Your task to perform on an android device: Open accessibility settings Image 0: 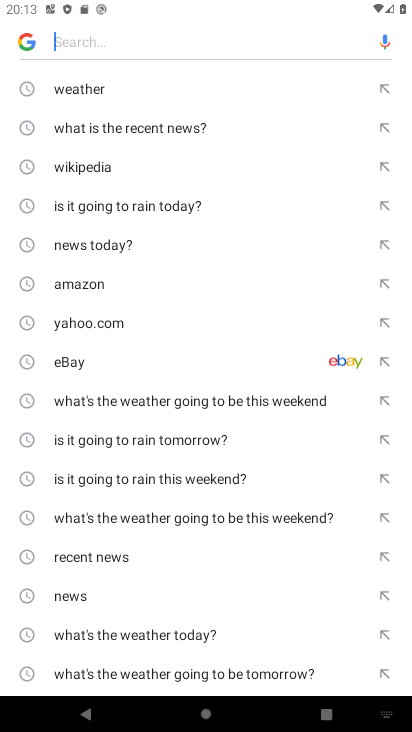
Step 0: press home button
Your task to perform on an android device: Open accessibility settings Image 1: 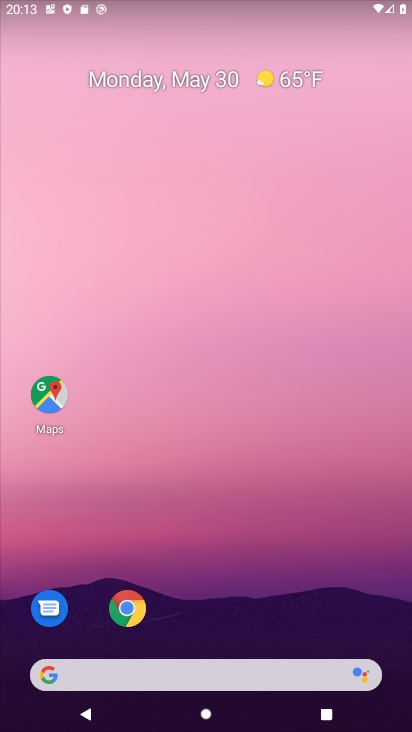
Step 1: drag from (210, 632) to (184, 185)
Your task to perform on an android device: Open accessibility settings Image 2: 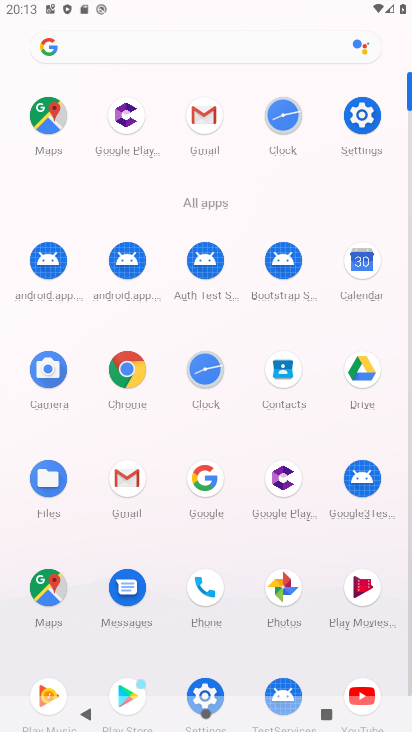
Step 2: click (351, 115)
Your task to perform on an android device: Open accessibility settings Image 3: 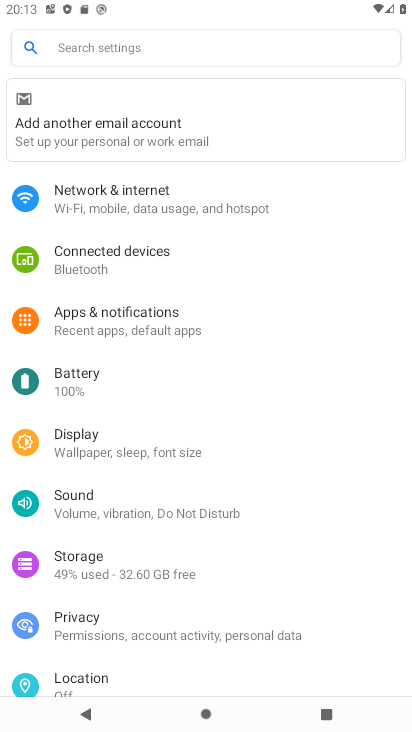
Step 3: drag from (198, 587) to (221, 351)
Your task to perform on an android device: Open accessibility settings Image 4: 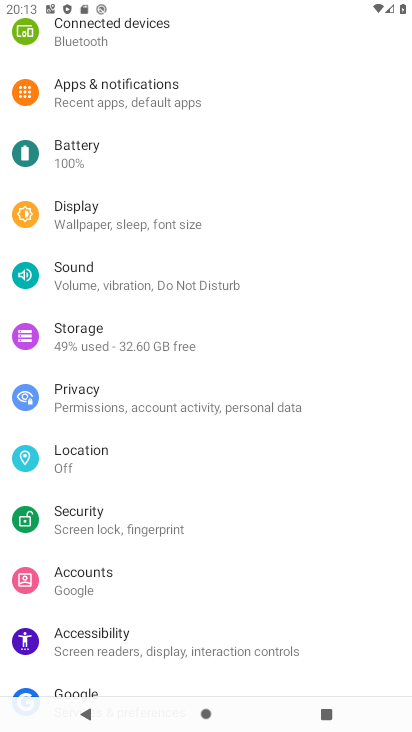
Step 4: click (127, 636)
Your task to perform on an android device: Open accessibility settings Image 5: 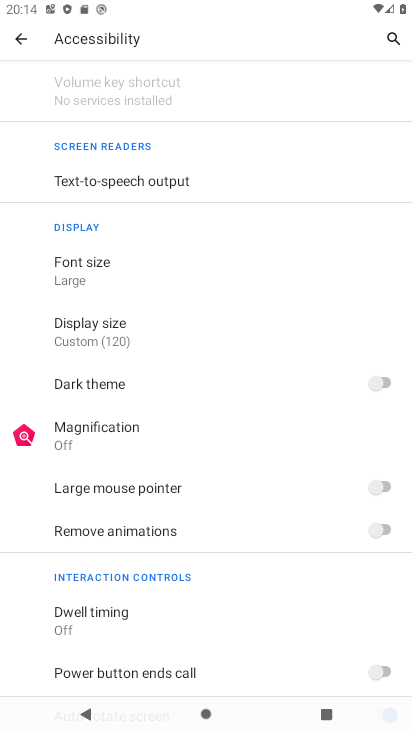
Step 5: task complete